Your task to perform on an android device: Turn on the flashlight Image 0: 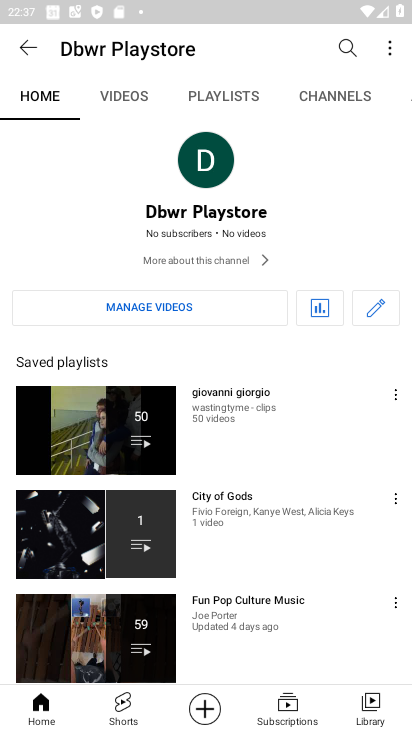
Step 0: press home button
Your task to perform on an android device: Turn on the flashlight Image 1: 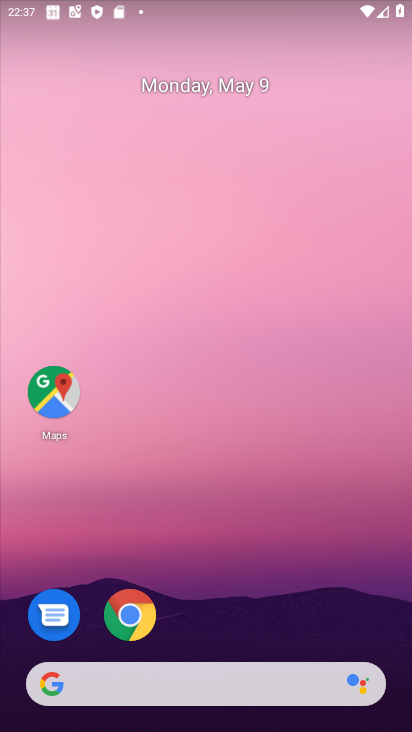
Step 1: drag from (201, 638) to (217, 184)
Your task to perform on an android device: Turn on the flashlight Image 2: 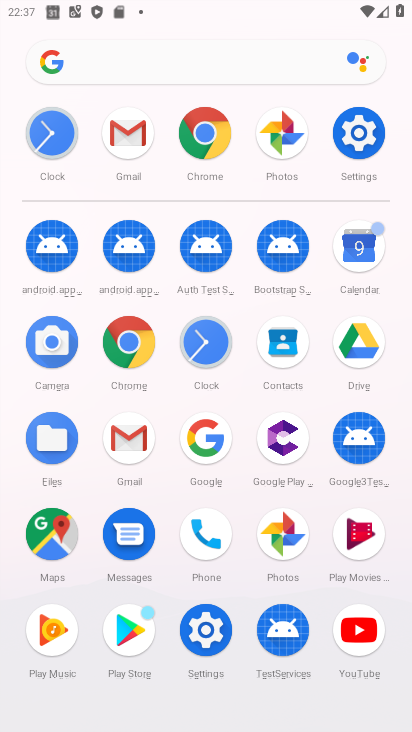
Step 2: click (353, 132)
Your task to perform on an android device: Turn on the flashlight Image 3: 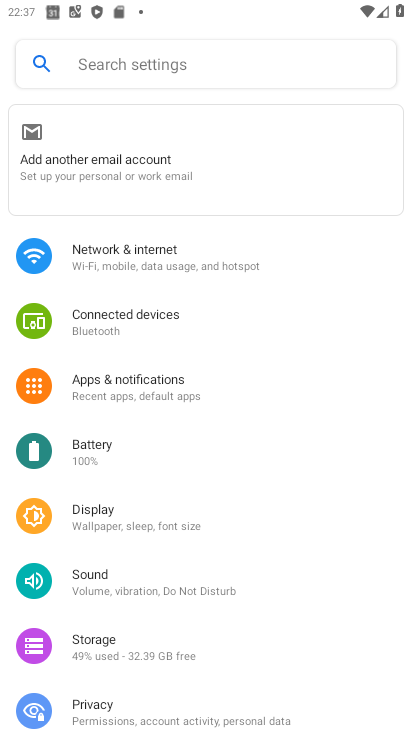
Step 3: task complete